Your task to perform on an android device: allow notifications from all sites in the chrome app Image 0: 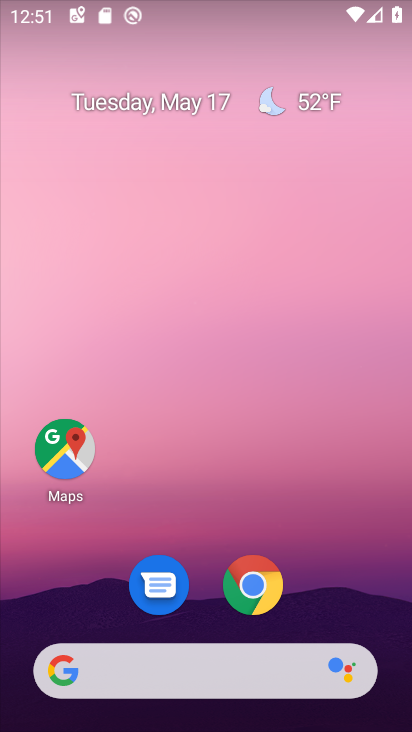
Step 0: click (247, 586)
Your task to perform on an android device: allow notifications from all sites in the chrome app Image 1: 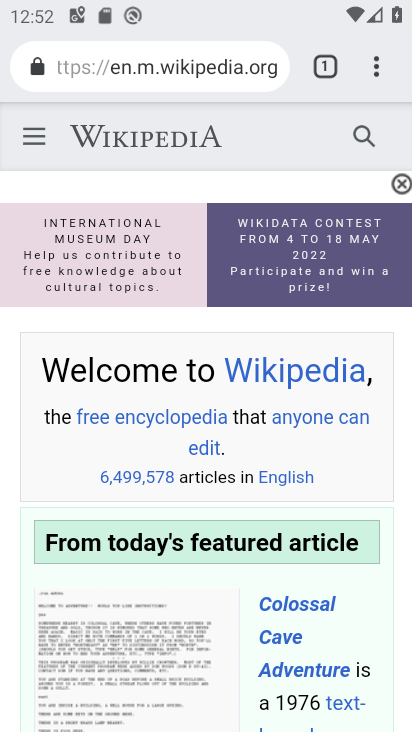
Step 1: click (374, 69)
Your task to perform on an android device: allow notifications from all sites in the chrome app Image 2: 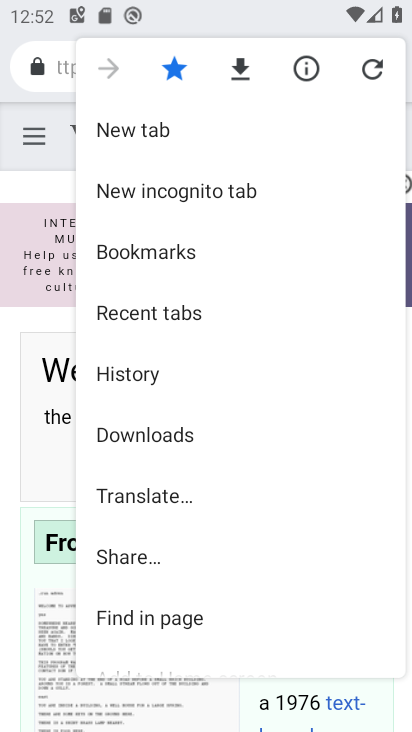
Step 2: drag from (261, 574) to (290, 245)
Your task to perform on an android device: allow notifications from all sites in the chrome app Image 3: 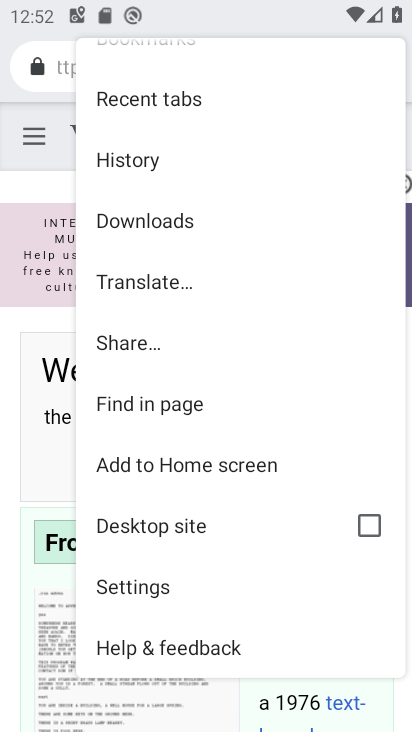
Step 3: click (170, 588)
Your task to perform on an android device: allow notifications from all sites in the chrome app Image 4: 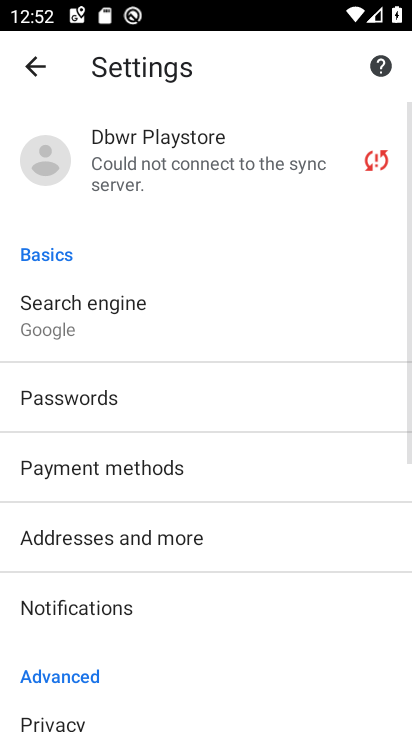
Step 4: click (177, 597)
Your task to perform on an android device: allow notifications from all sites in the chrome app Image 5: 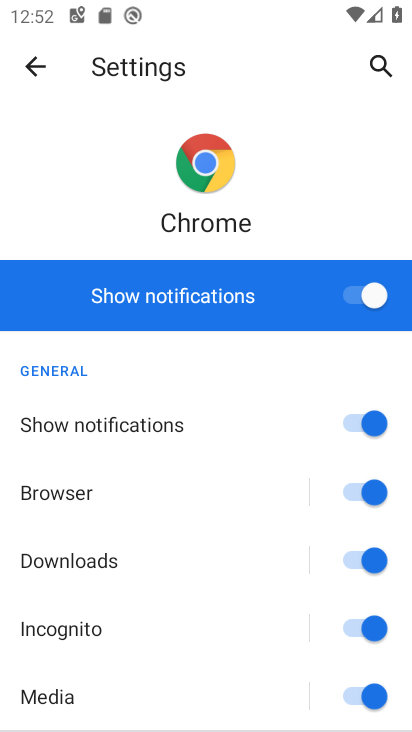
Step 5: task complete